Your task to perform on an android device: check google app version Image 0: 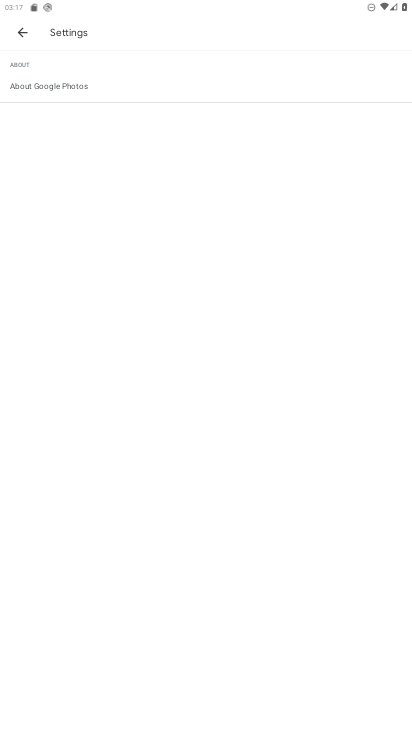
Step 0: press home button
Your task to perform on an android device: check google app version Image 1: 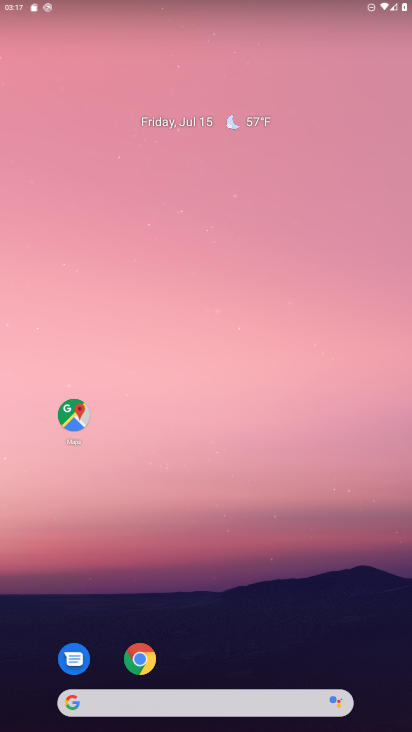
Step 1: click (69, 704)
Your task to perform on an android device: check google app version Image 2: 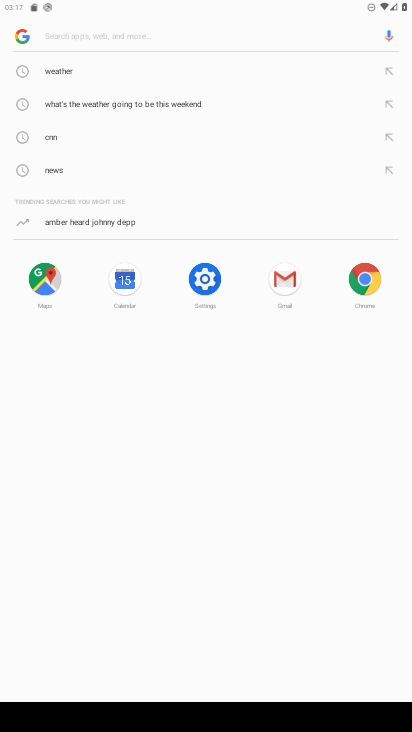
Step 2: click (26, 37)
Your task to perform on an android device: check google app version Image 3: 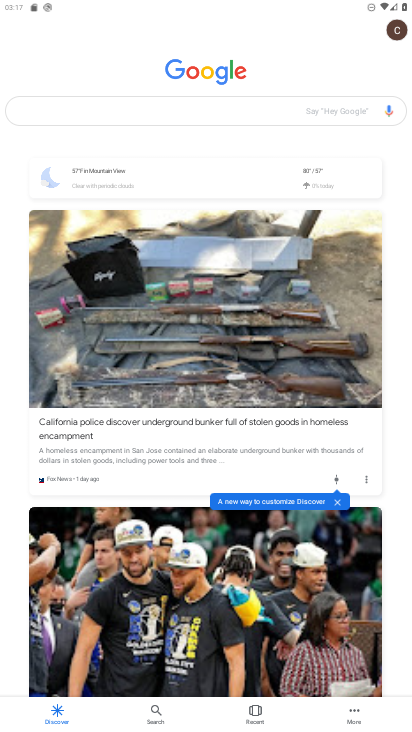
Step 3: click (351, 716)
Your task to perform on an android device: check google app version Image 4: 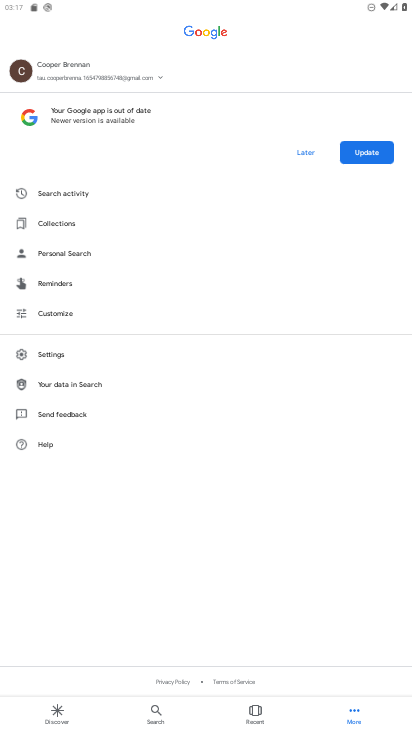
Step 4: click (59, 356)
Your task to perform on an android device: check google app version Image 5: 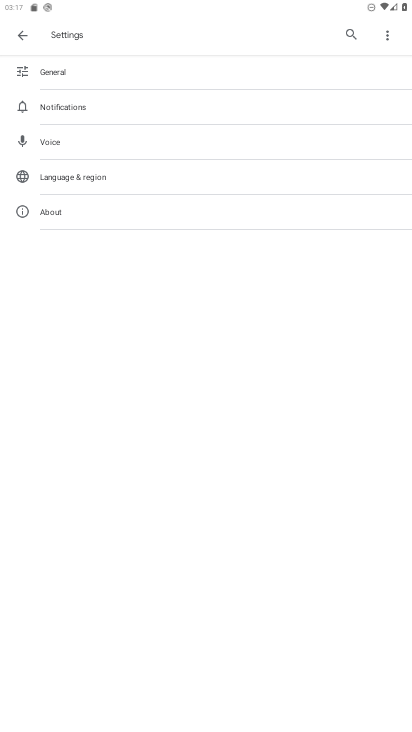
Step 5: click (75, 211)
Your task to perform on an android device: check google app version Image 6: 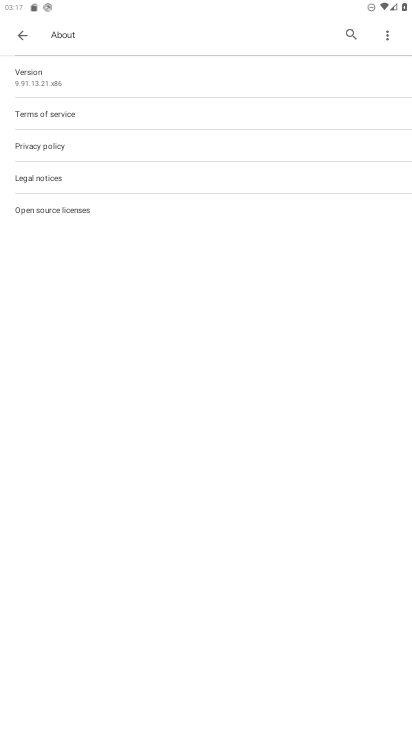
Step 6: task complete